Your task to perform on an android device: Open Google Image 0: 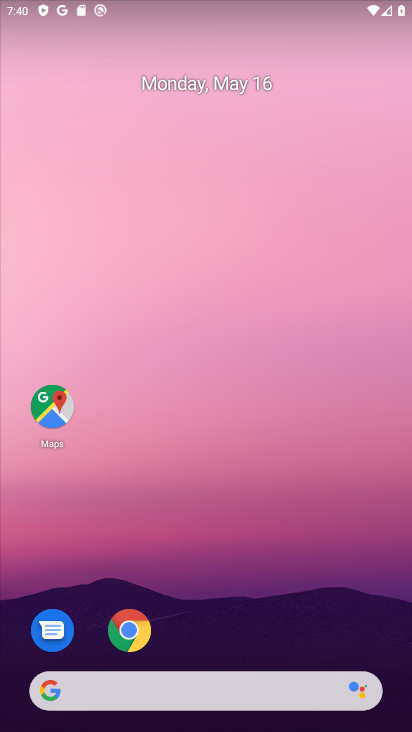
Step 0: drag from (190, 640) to (169, 208)
Your task to perform on an android device: Open Google Image 1: 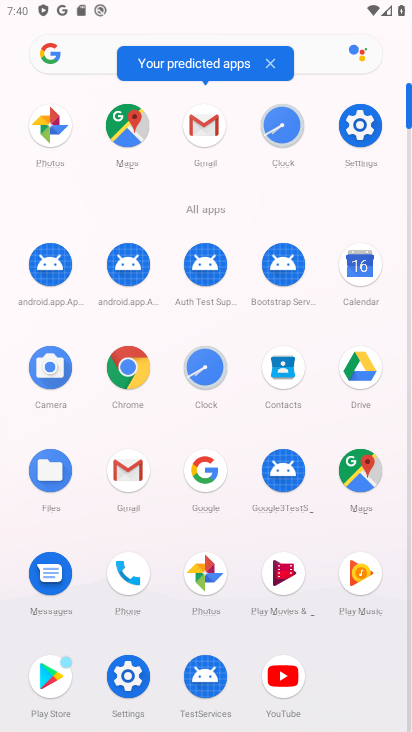
Step 1: click (189, 466)
Your task to perform on an android device: Open Google Image 2: 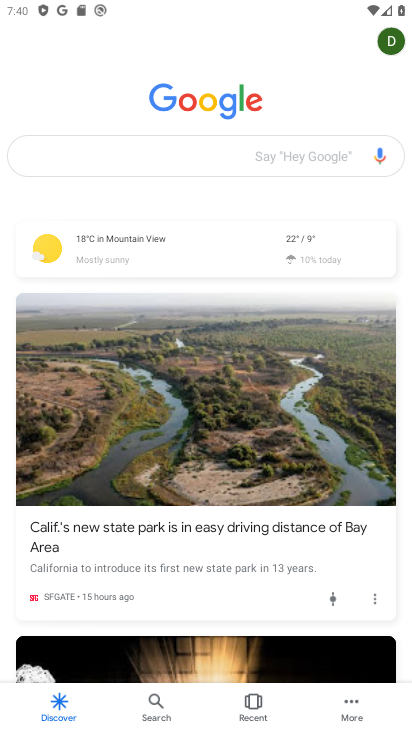
Step 2: task complete